Your task to perform on an android device: Go to eBay Image 0: 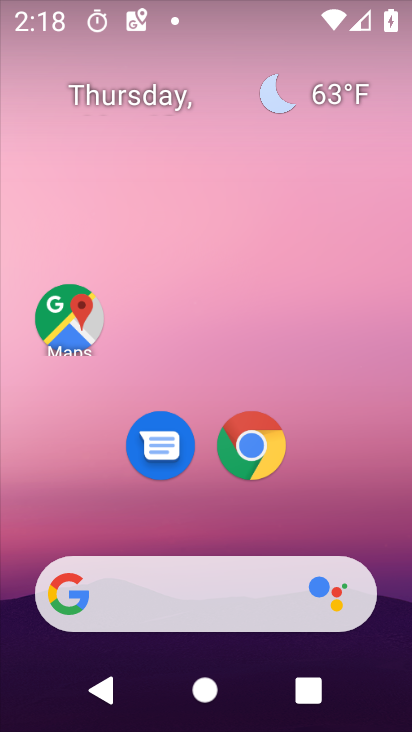
Step 0: click (243, 435)
Your task to perform on an android device: Go to eBay Image 1: 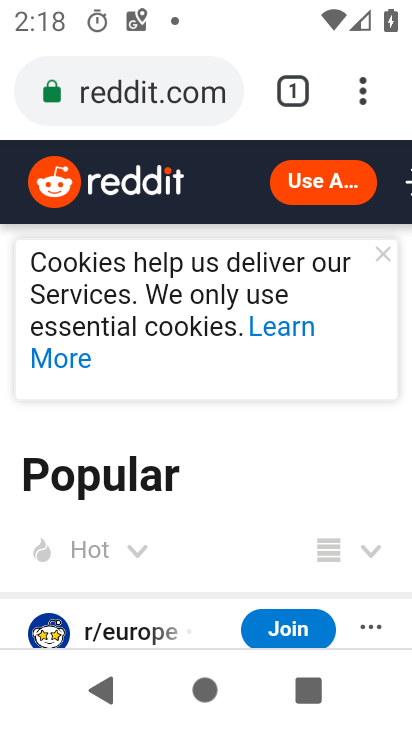
Step 1: click (175, 99)
Your task to perform on an android device: Go to eBay Image 2: 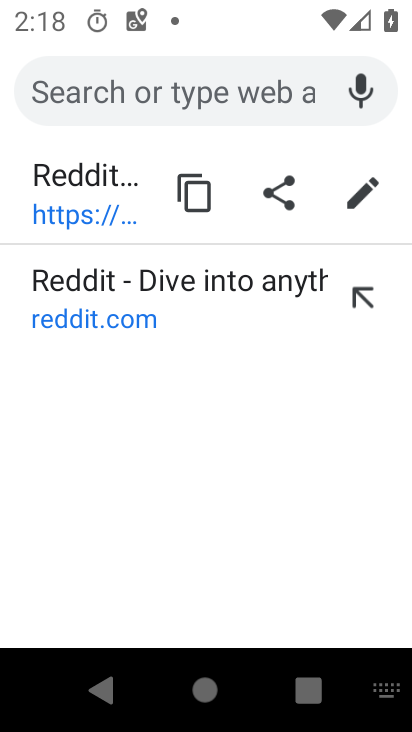
Step 2: type "ebay"
Your task to perform on an android device: Go to eBay Image 3: 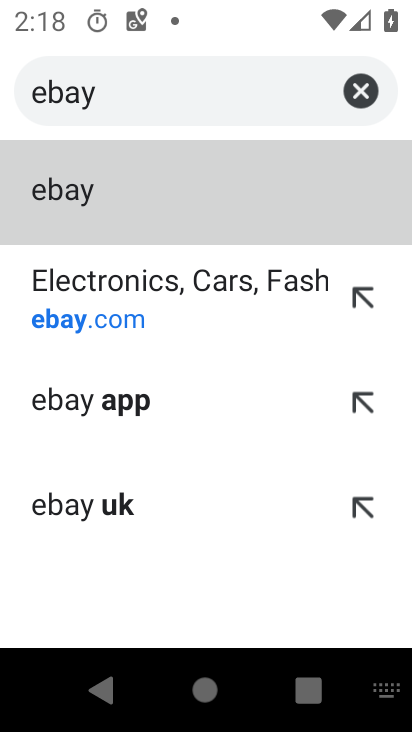
Step 3: click (259, 279)
Your task to perform on an android device: Go to eBay Image 4: 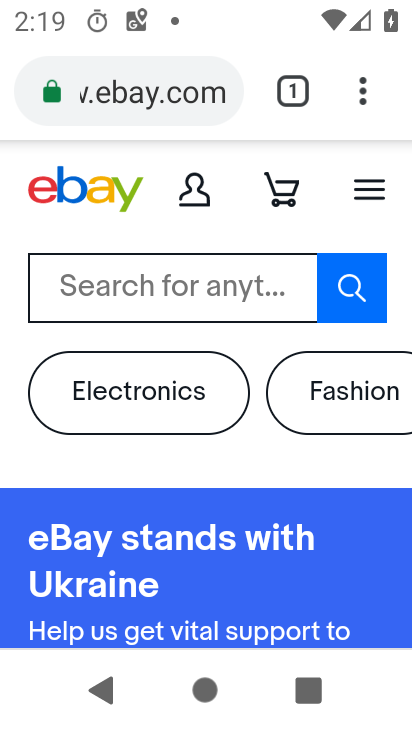
Step 4: task complete